Your task to perform on an android device: Search for alienware aurora on amazon, select the first entry, add it to the cart, then select checkout. Image 0: 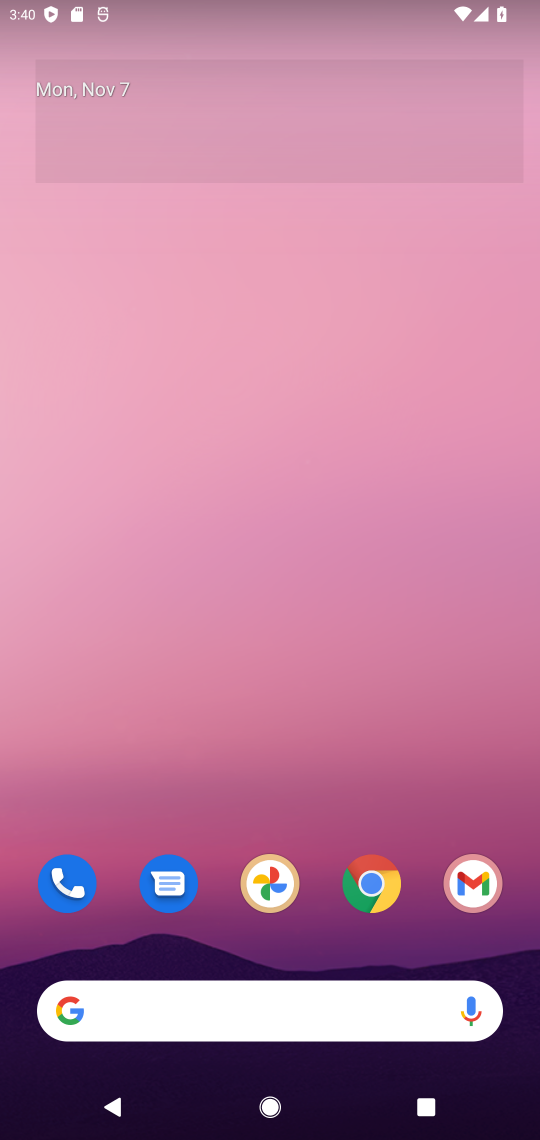
Step 0: click (373, 880)
Your task to perform on an android device: Search for alienware aurora on amazon, select the first entry, add it to the cart, then select checkout. Image 1: 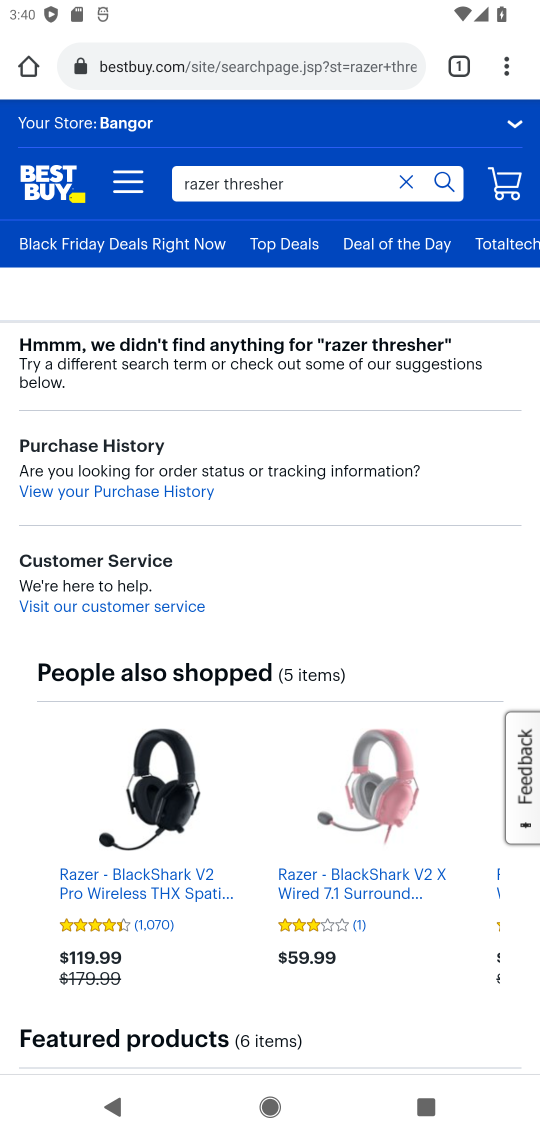
Step 1: click (218, 71)
Your task to perform on an android device: Search for alienware aurora on amazon, select the first entry, add it to the cart, then select checkout. Image 2: 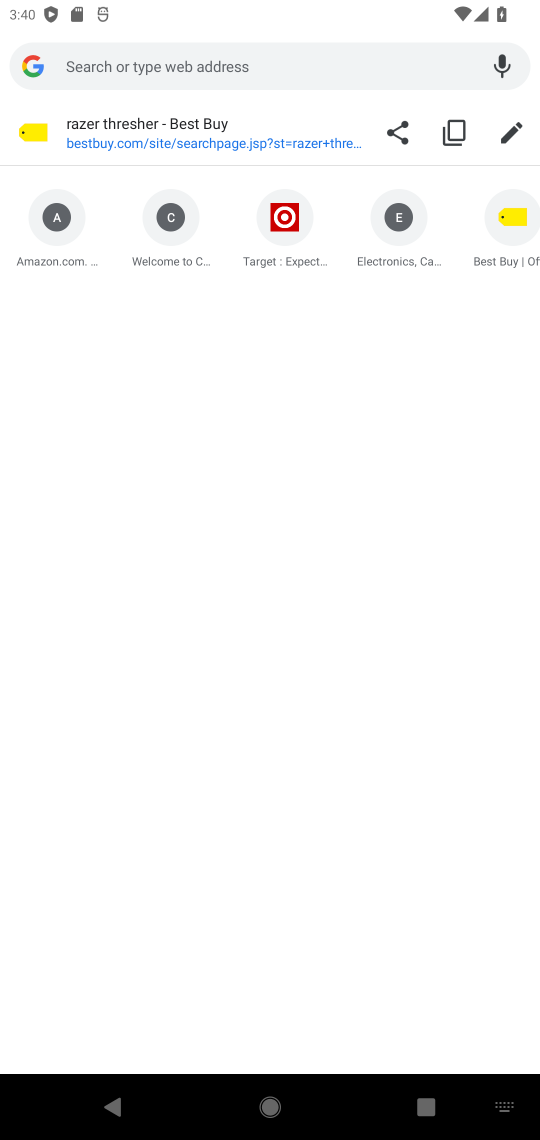
Step 2: click (46, 265)
Your task to perform on an android device: Search for alienware aurora on amazon, select the first entry, add it to the cart, then select checkout. Image 3: 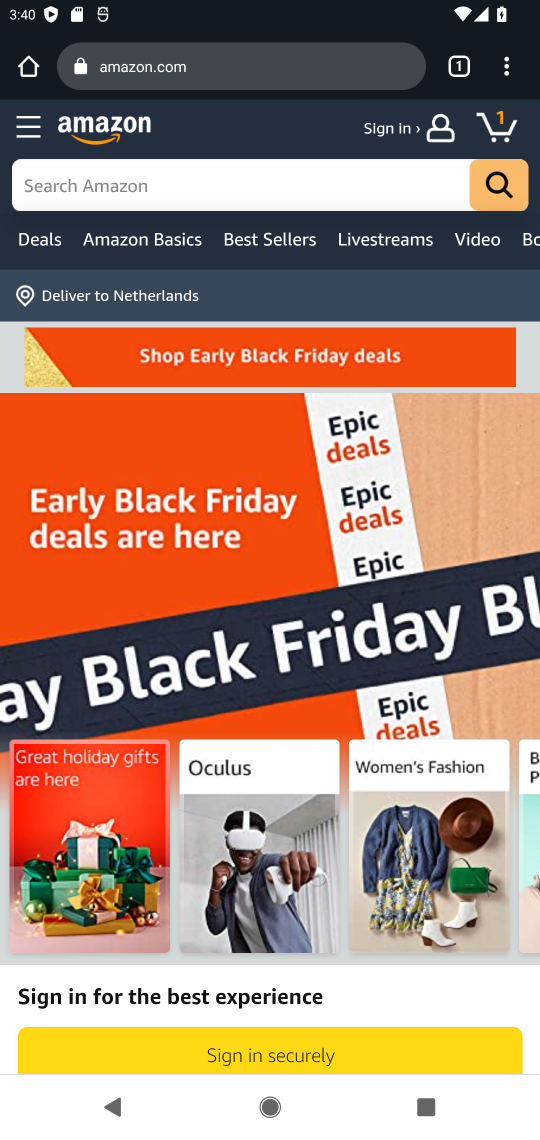
Step 3: click (151, 178)
Your task to perform on an android device: Search for alienware aurora on amazon, select the first entry, add it to the cart, then select checkout. Image 4: 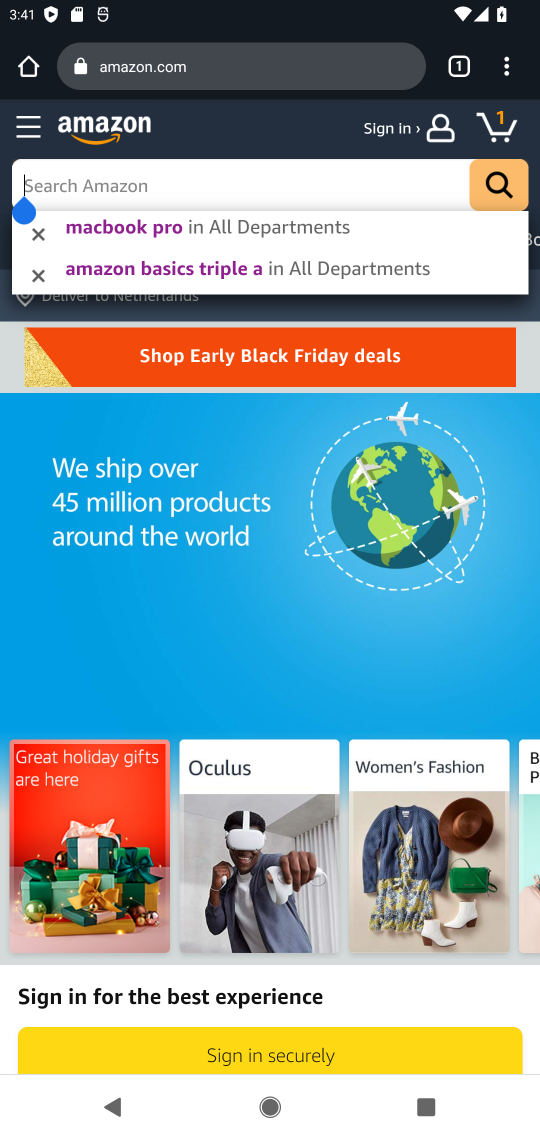
Step 4: type "alienware aurora"
Your task to perform on an android device: Search for alienware aurora on amazon, select the first entry, add it to the cart, then select checkout. Image 5: 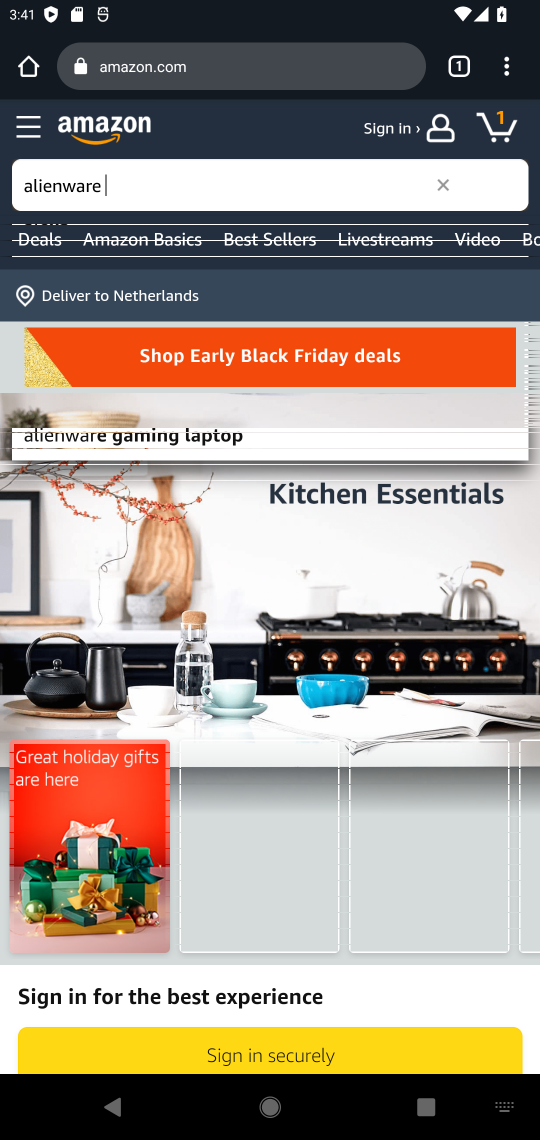
Step 5: press enter
Your task to perform on an android device: Search for alienware aurora on amazon, select the first entry, add it to the cart, then select checkout. Image 6: 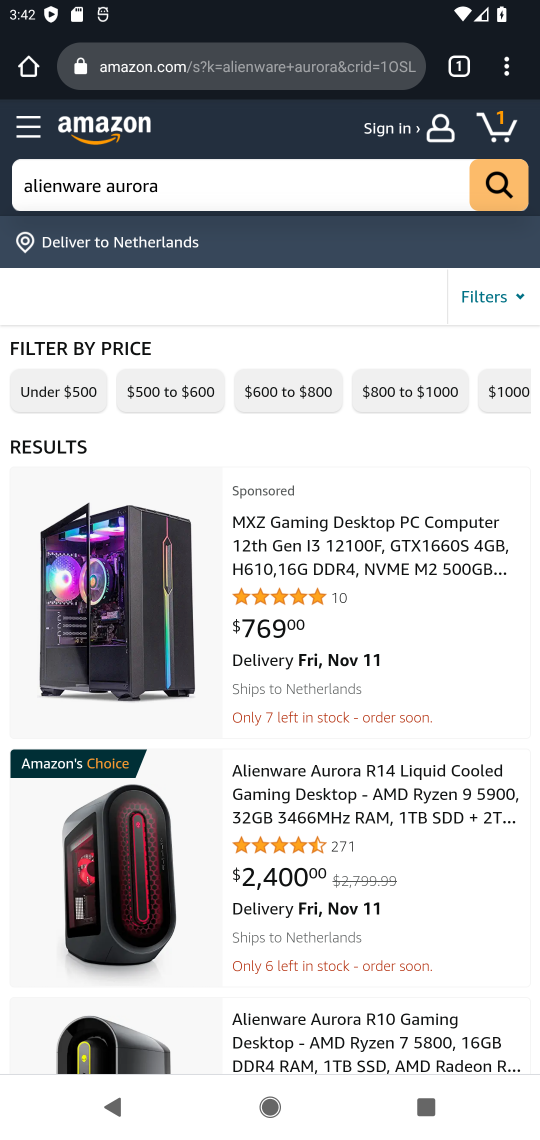
Step 6: task complete